Your task to perform on an android device: turn on bluetooth scan Image 0: 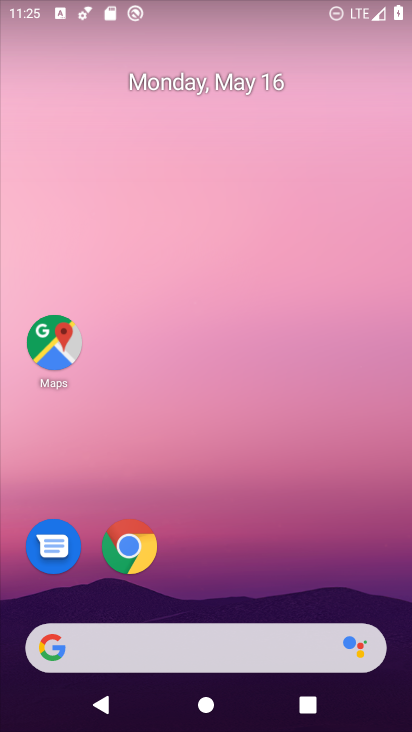
Step 0: drag from (269, 591) to (255, 93)
Your task to perform on an android device: turn on bluetooth scan Image 1: 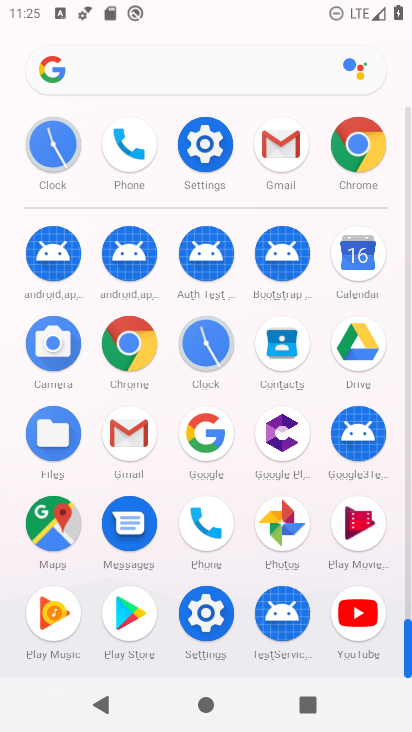
Step 1: click (188, 125)
Your task to perform on an android device: turn on bluetooth scan Image 2: 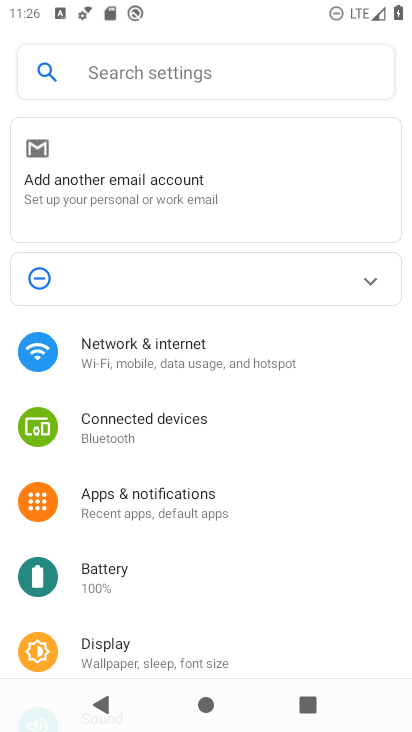
Step 2: drag from (122, 626) to (162, 195)
Your task to perform on an android device: turn on bluetooth scan Image 3: 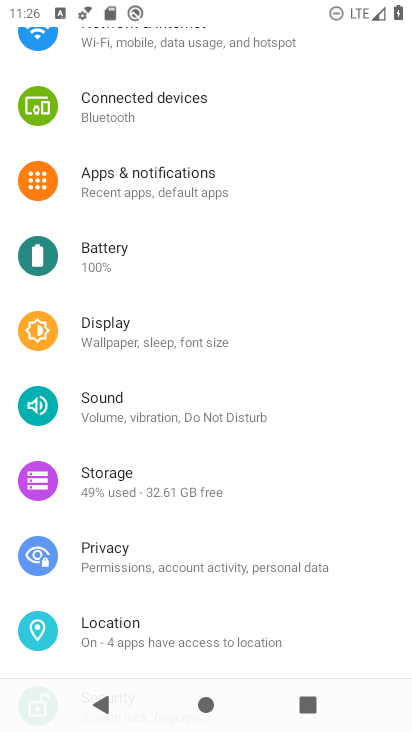
Step 3: click (229, 624)
Your task to perform on an android device: turn on bluetooth scan Image 4: 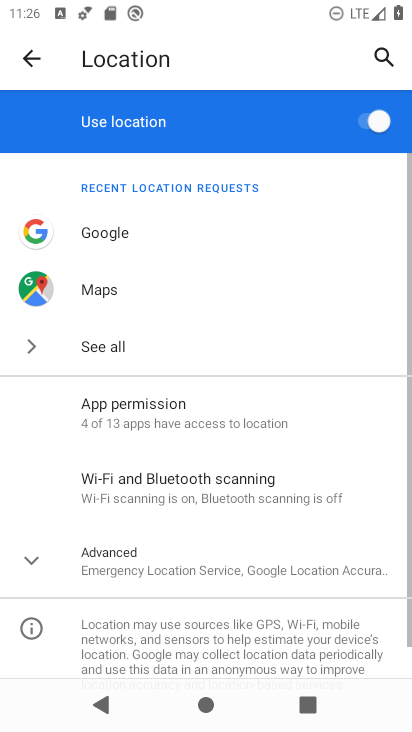
Step 4: click (249, 489)
Your task to perform on an android device: turn on bluetooth scan Image 5: 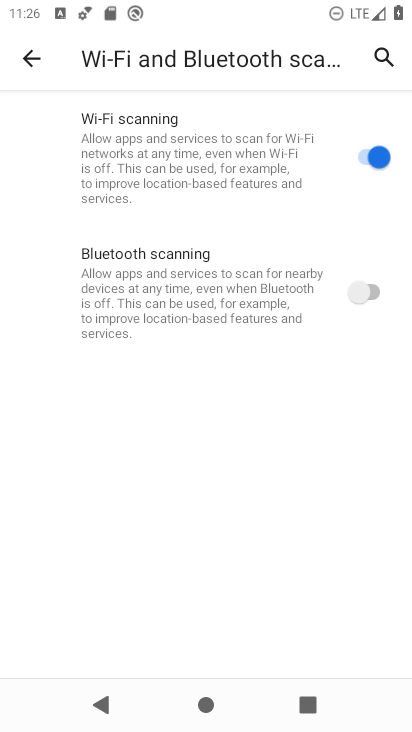
Step 5: click (380, 294)
Your task to perform on an android device: turn on bluetooth scan Image 6: 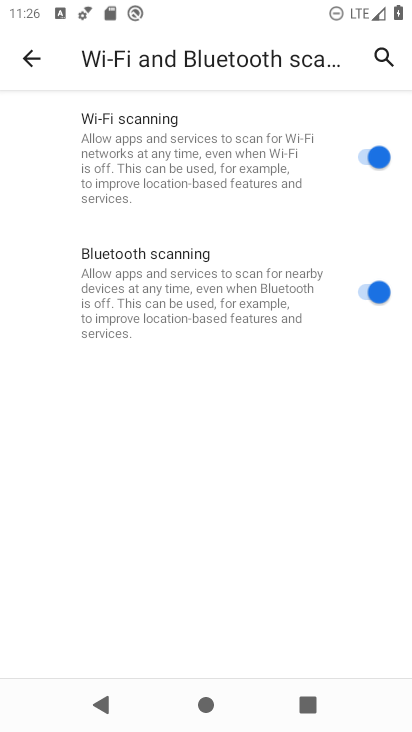
Step 6: task complete